Your task to perform on an android device: refresh tabs in the chrome app Image 0: 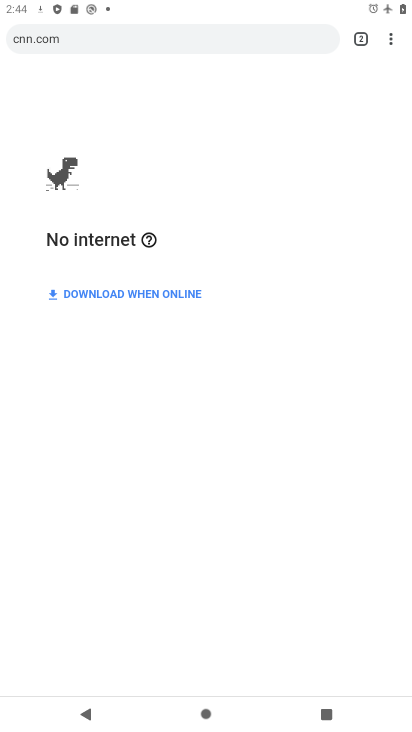
Step 0: press home button
Your task to perform on an android device: refresh tabs in the chrome app Image 1: 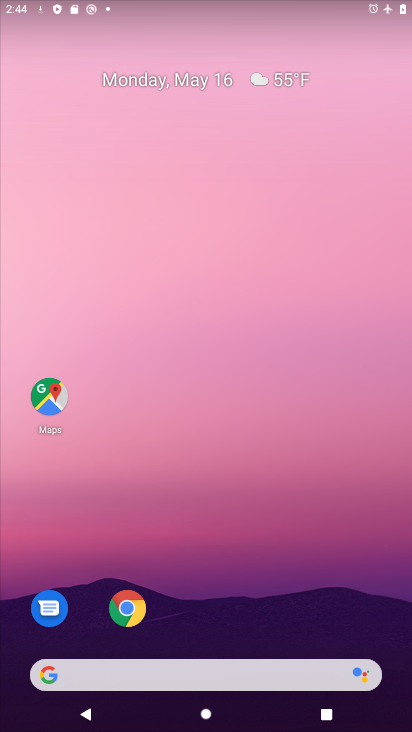
Step 1: click (132, 605)
Your task to perform on an android device: refresh tabs in the chrome app Image 2: 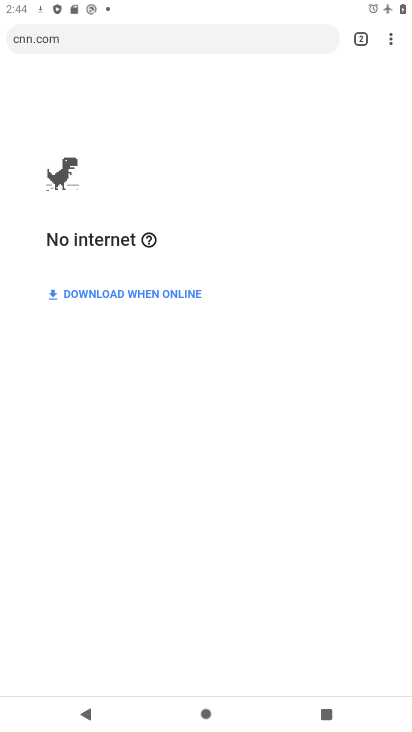
Step 2: click (382, 41)
Your task to perform on an android device: refresh tabs in the chrome app Image 3: 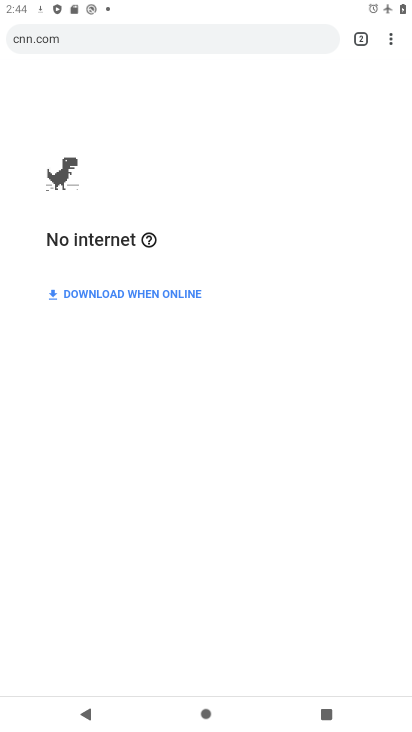
Step 3: click (389, 41)
Your task to perform on an android device: refresh tabs in the chrome app Image 4: 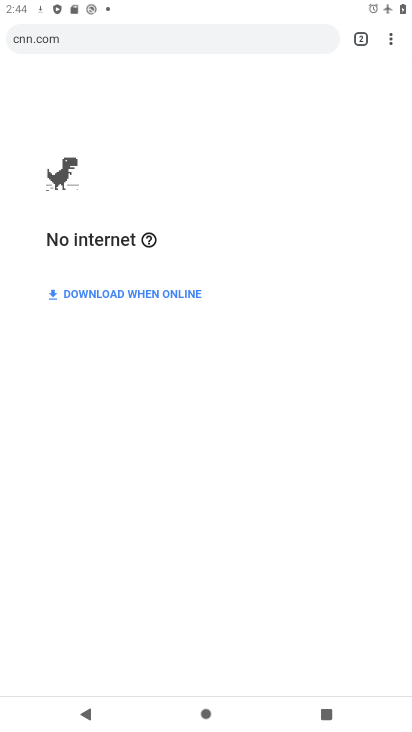
Step 4: task complete